Your task to perform on an android device: turn on wifi Image 0: 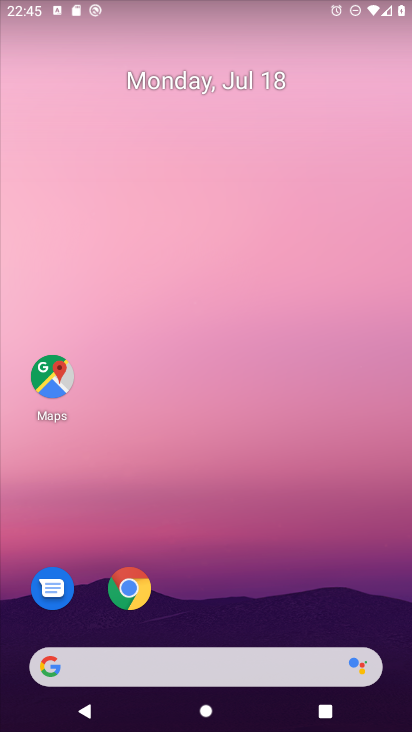
Step 0: drag from (389, 619) to (313, 66)
Your task to perform on an android device: turn on wifi Image 1: 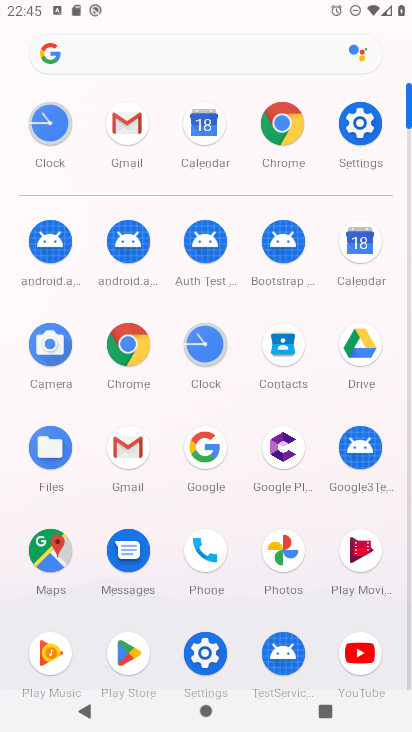
Step 1: click (202, 654)
Your task to perform on an android device: turn on wifi Image 2: 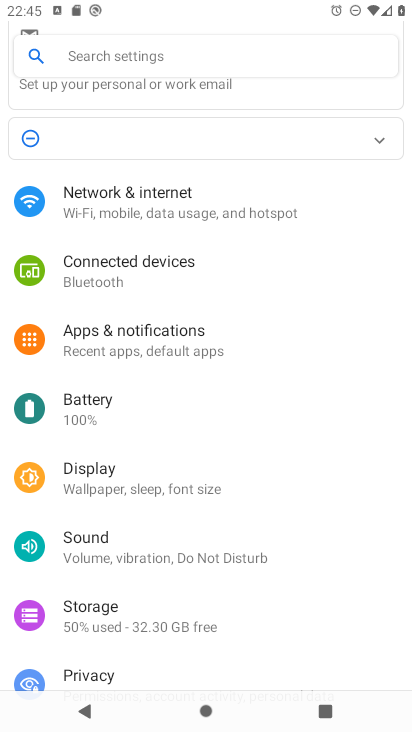
Step 2: click (100, 200)
Your task to perform on an android device: turn on wifi Image 3: 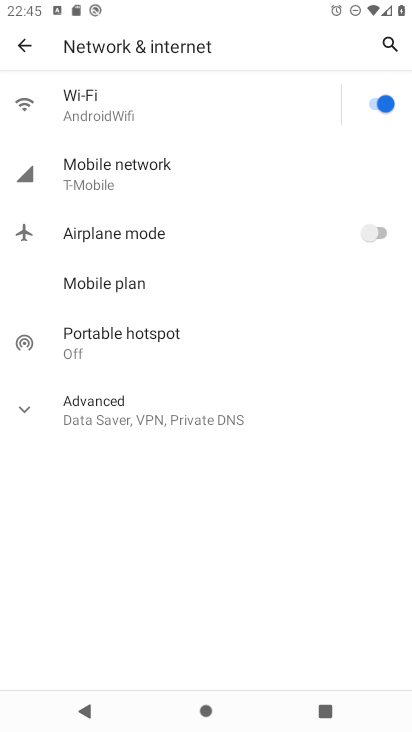
Step 3: task complete